Your task to perform on an android device: turn off picture-in-picture Image 0: 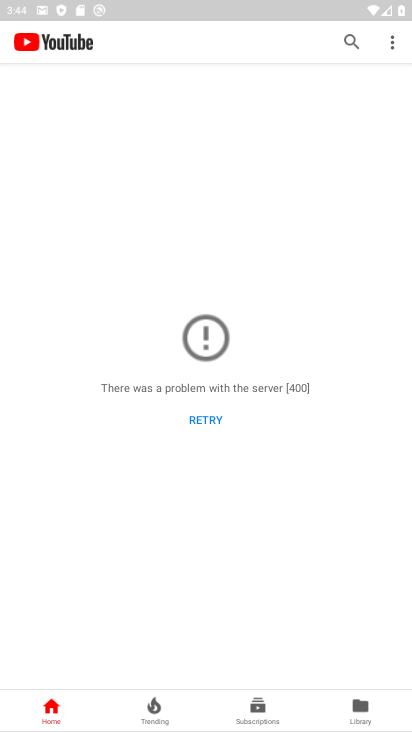
Step 0: press home button
Your task to perform on an android device: turn off picture-in-picture Image 1: 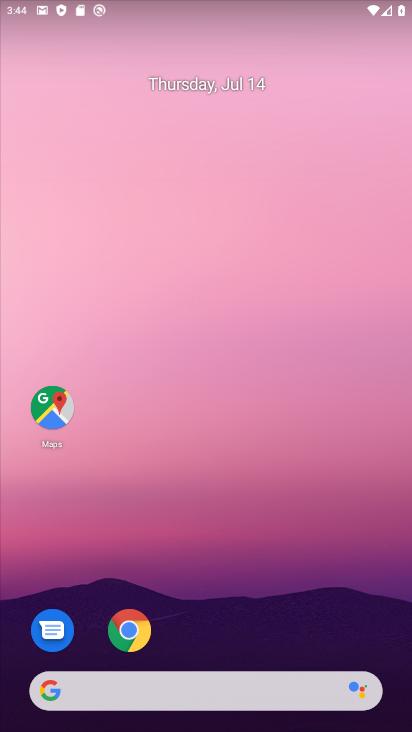
Step 1: drag from (258, 571) to (338, 31)
Your task to perform on an android device: turn off picture-in-picture Image 2: 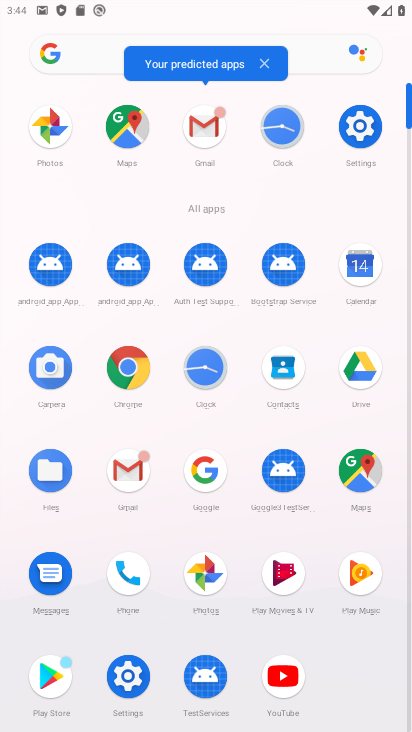
Step 2: click (148, 696)
Your task to perform on an android device: turn off picture-in-picture Image 3: 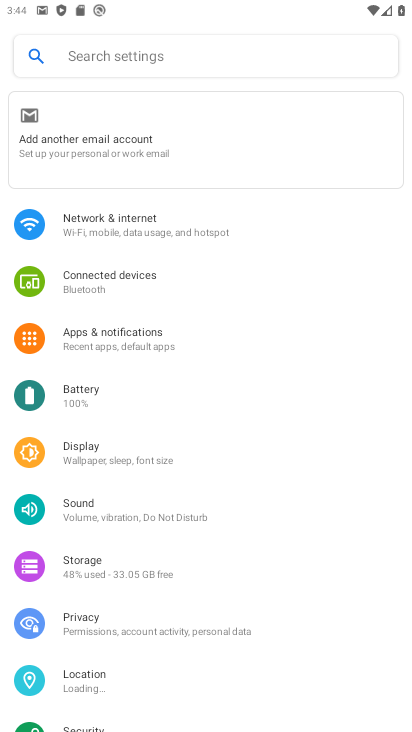
Step 3: drag from (171, 621) to (234, 381)
Your task to perform on an android device: turn off picture-in-picture Image 4: 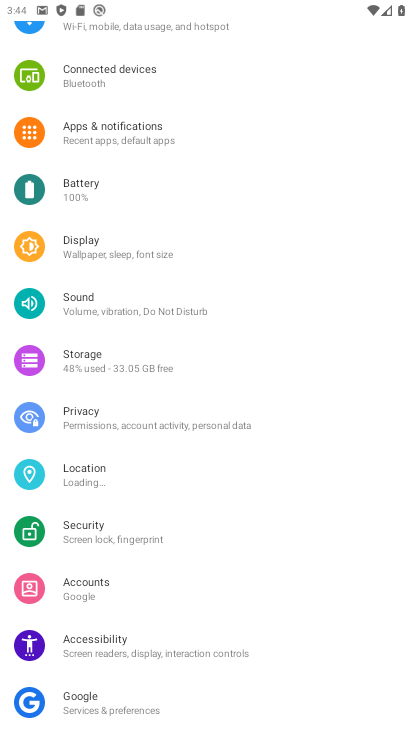
Step 4: click (140, 246)
Your task to perform on an android device: turn off picture-in-picture Image 5: 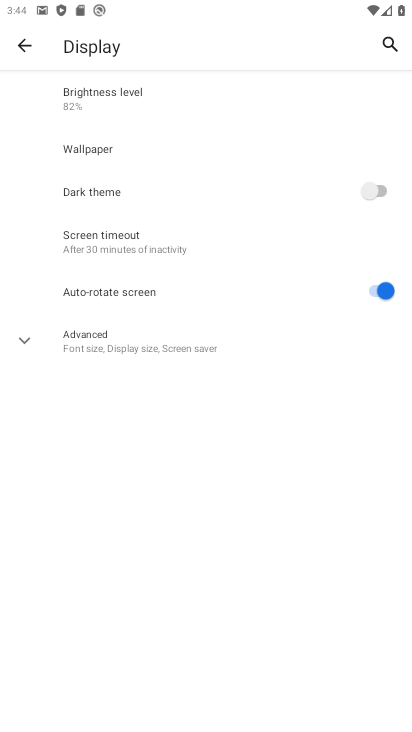
Step 5: click (139, 350)
Your task to perform on an android device: turn off picture-in-picture Image 6: 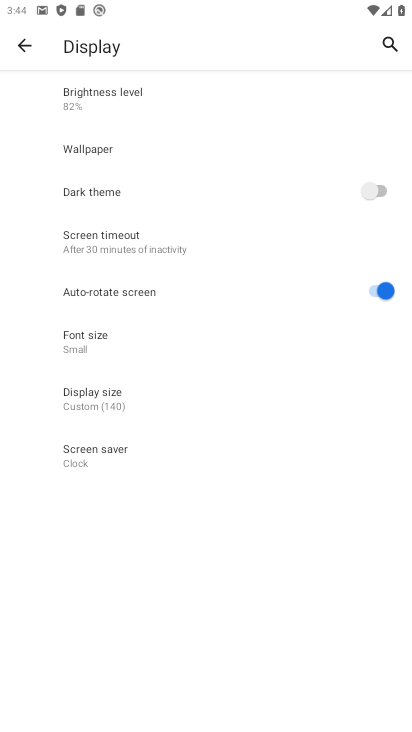
Step 6: press back button
Your task to perform on an android device: turn off picture-in-picture Image 7: 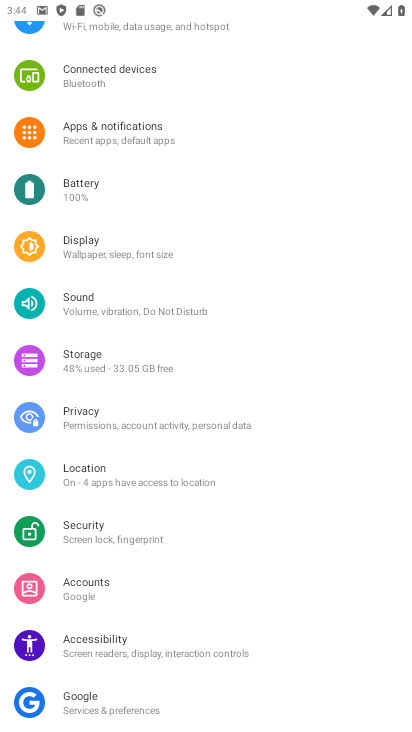
Step 7: click (151, 145)
Your task to perform on an android device: turn off picture-in-picture Image 8: 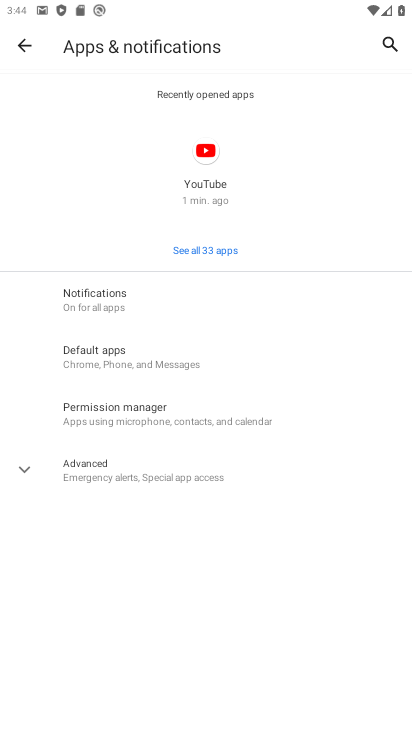
Step 8: click (149, 469)
Your task to perform on an android device: turn off picture-in-picture Image 9: 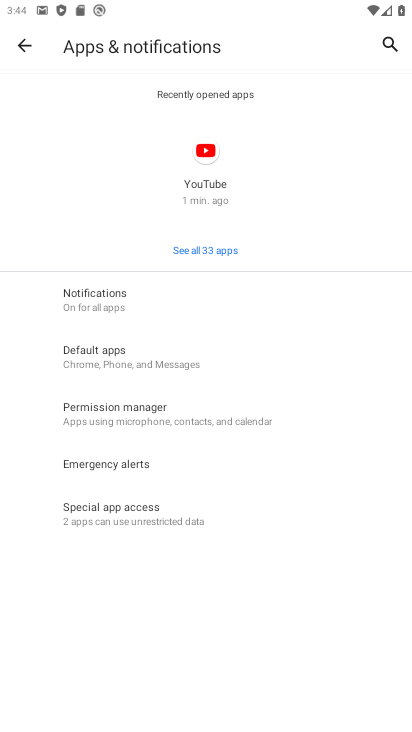
Step 9: click (175, 525)
Your task to perform on an android device: turn off picture-in-picture Image 10: 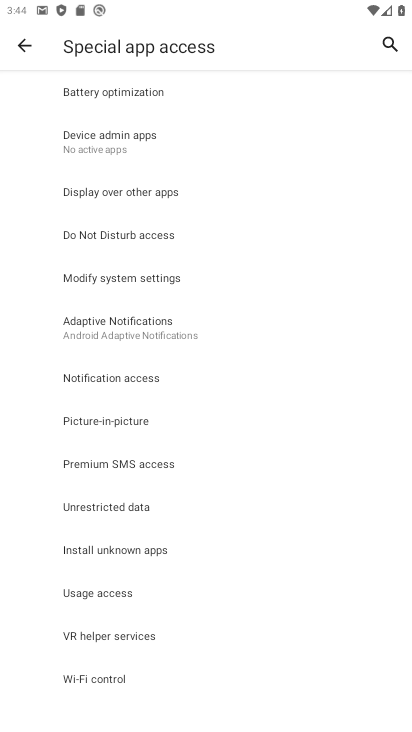
Step 10: click (122, 426)
Your task to perform on an android device: turn off picture-in-picture Image 11: 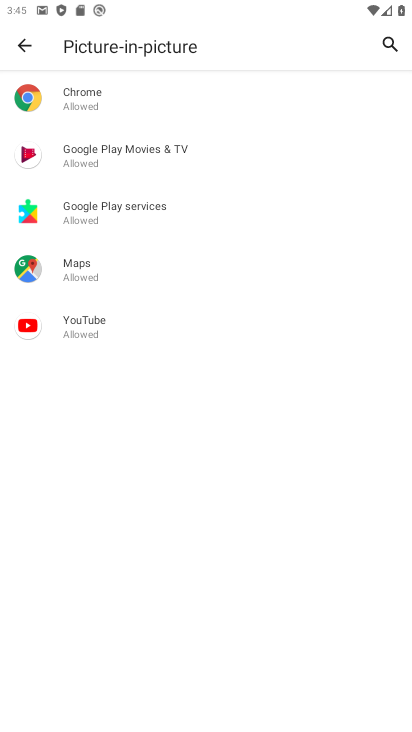
Step 11: click (125, 120)
Your task to perform on an android device: turn off picture-in-picture Image 12: 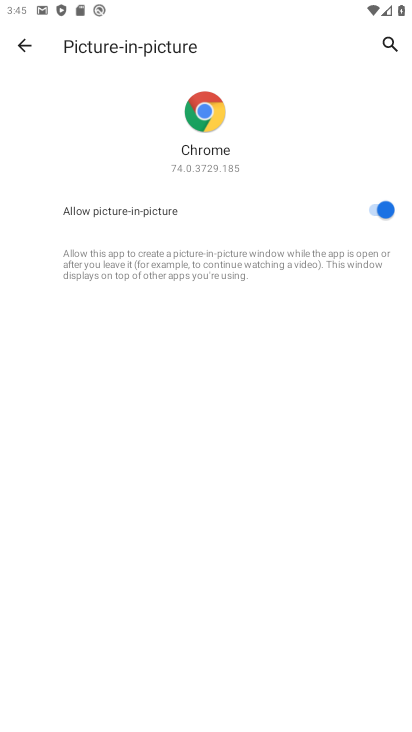
Step 12: click (375, 206)
Your task to perform on an android device: turn off picture-in-picture Image 13: 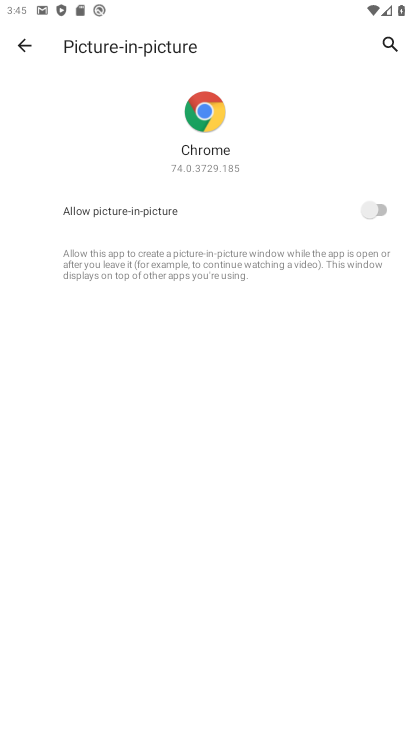
Step 13: press back button
Your task to perform on an android device: turn off picture-in-picture Image 14: 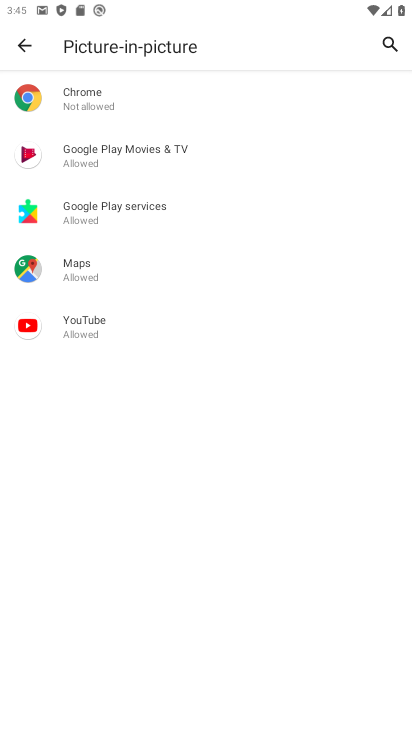
Step 14: click (174, 172)
Your task to perform on an android device: turn off picture-in-picture Image 15: 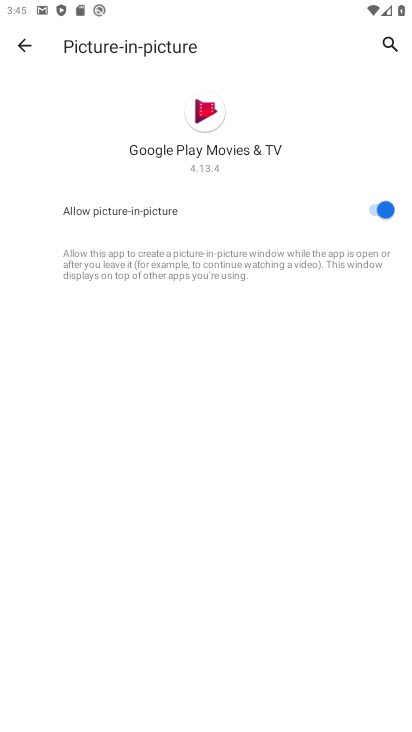
Step 15: click (375, 214)
Your task to perform on an android device: turn off picture-in-picture Image 16: 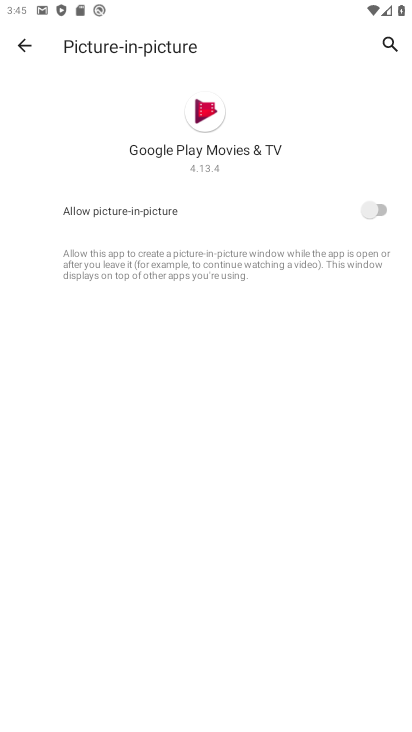
Step 16: press back button
Your task to perform on an android device: turn off picture-in-picture Image 17: 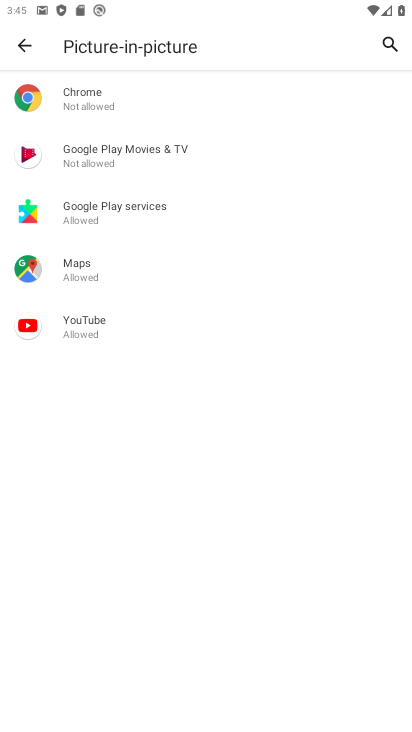
Step 17: click (202, 229)
Your task to perform on an android device: turn off picture-in-picture Image 18: 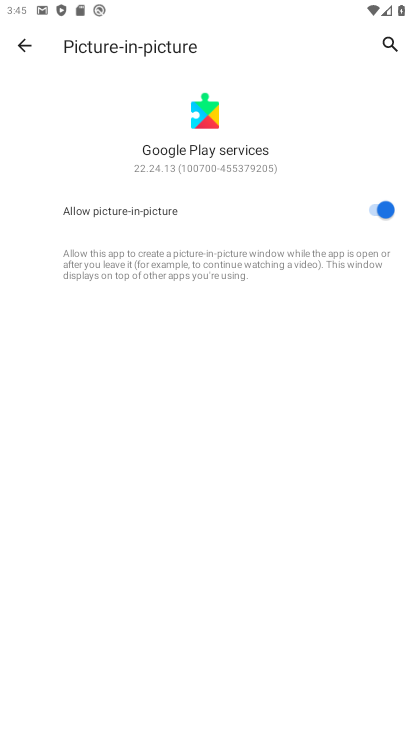
Step 18: click (375, 213)
Your task to perform on an android device: turn off picture-in-picture Image 19: 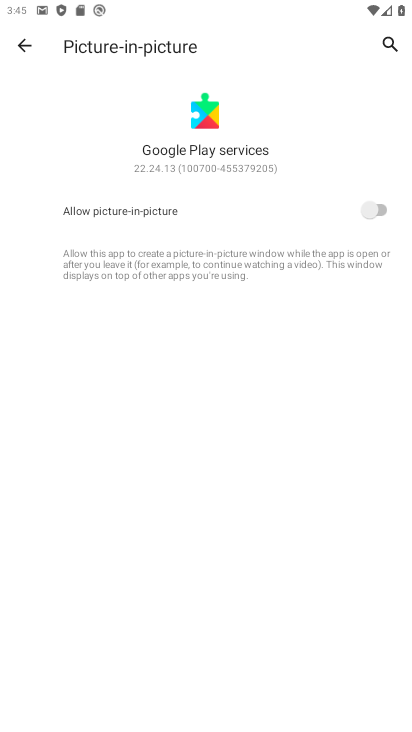
Step 19: press back button
Your task to perform on an android device: turn off picture-in-picture Image 20: 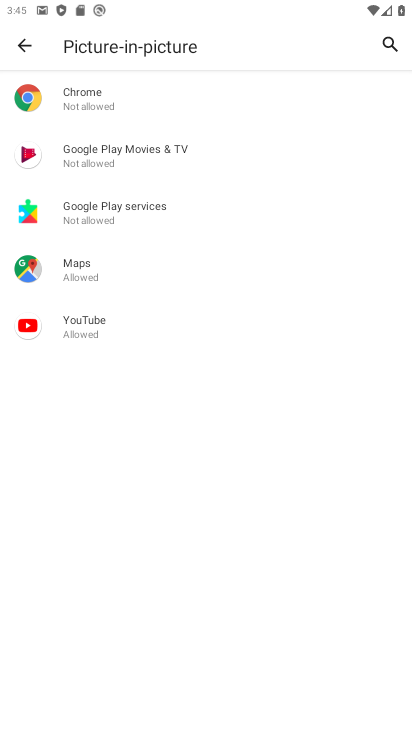
Step 20: click (118, 269)
Your task to perform on an android device: turn off picture-in-picture Image 21: 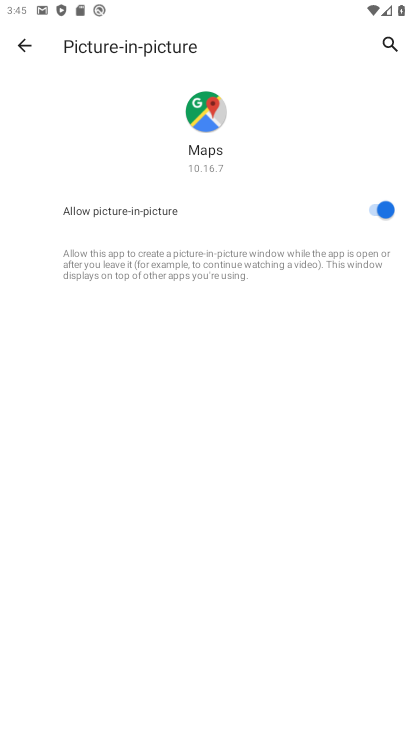
Step 21: click (368, 212)
Your task to perform on an android device: turn off picture-in-picture Image 22: 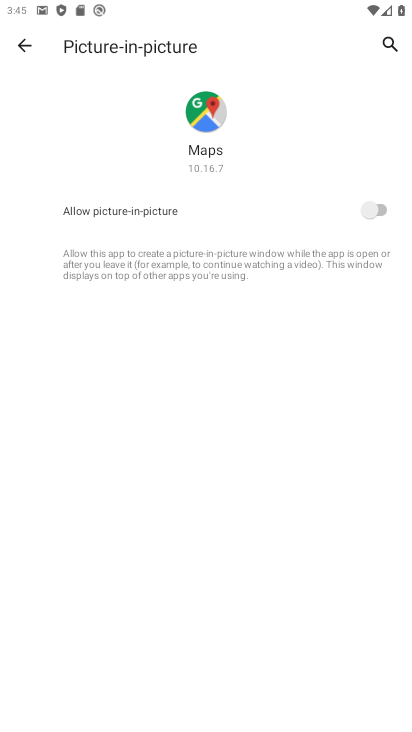
Step 22: press back button
Your task to perform on an android device: turn off picture-in-picture Image 23: 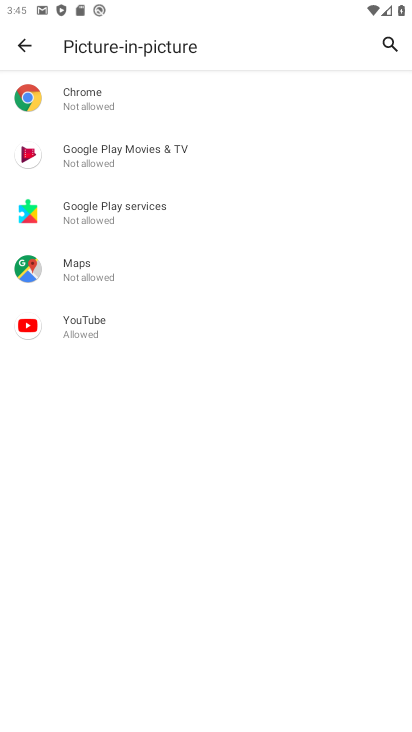
Step 23: click (118, 337)
Your task to perform on an android device: turn off picture-in-picture Image 24: 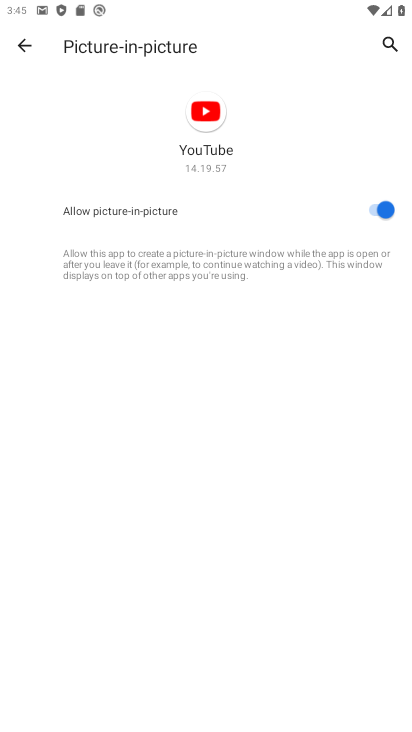
Step 24: click (362, 210)
Your task to perform on an android device: turn off picture-in-picture Image 25: 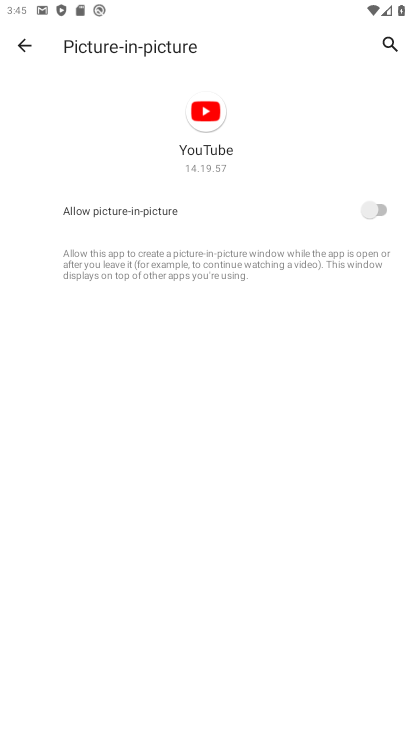
Step 25: task complete